Your task to perform on an android device: Open Yahoo.com Image 0: 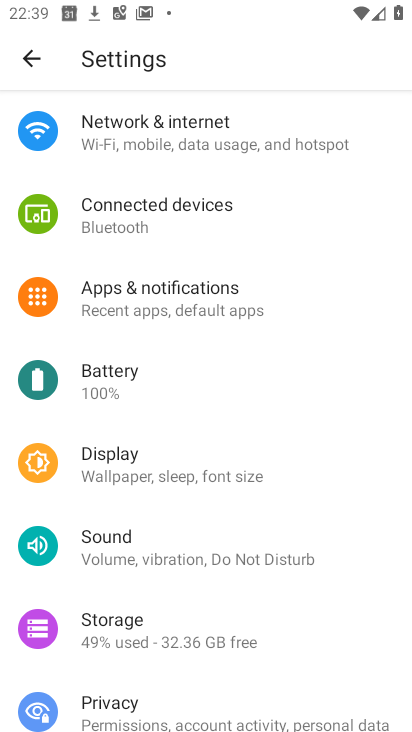
Step 0: press home button
Your task to perform on an android device: Open Yahoo.com Image 1: 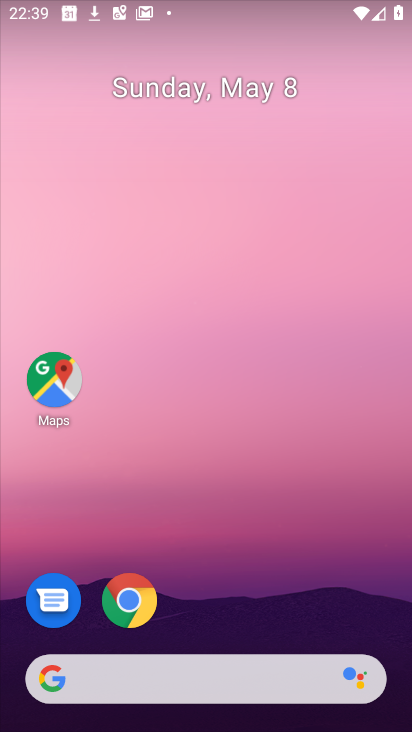
Step 1: drag from (254, 708) to (235, 270)
Your task to perform on an android device: Open Yahoo.com Image 2: 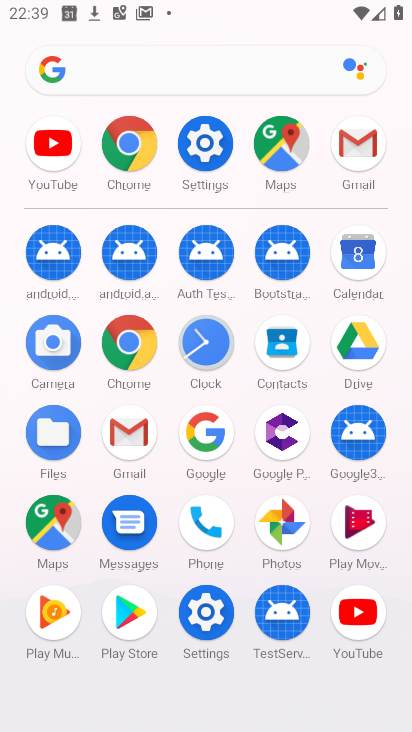
Step 2: click (134, 150)
Your task to perform on an android device: Open Yahoo.com Image 3: 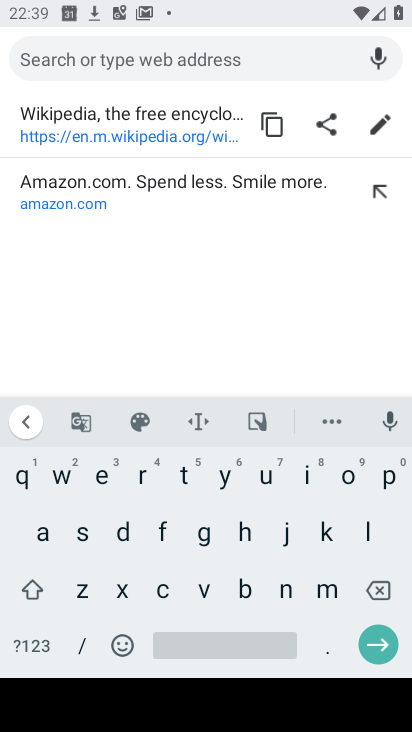
Step 3: click (222, 478)
Your task to perform on an android device: Open Yahoo.com Image 4: 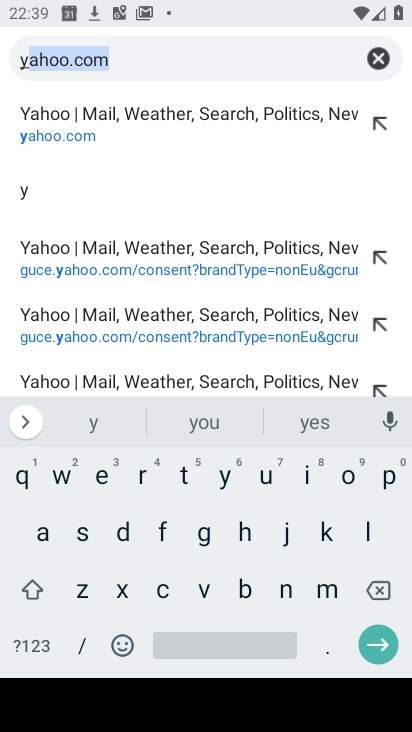
Step 4: click (35, 538)
Your task to perform on an android device: Open Yahoo.com Image 5: 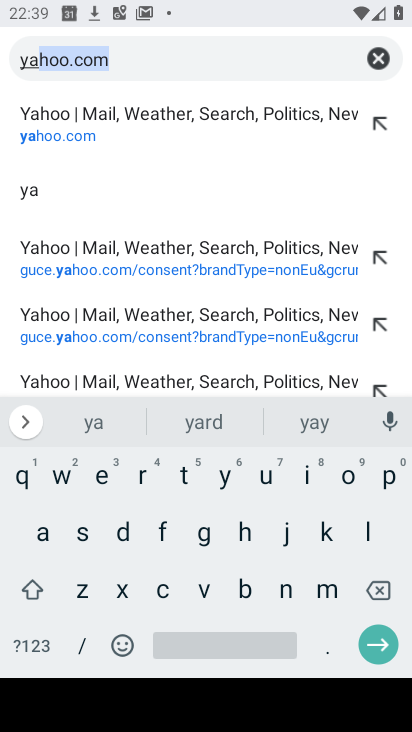
Step 5: click (138, 63)
Your task to perform on an android device: Open Yahoo.com Image 6: 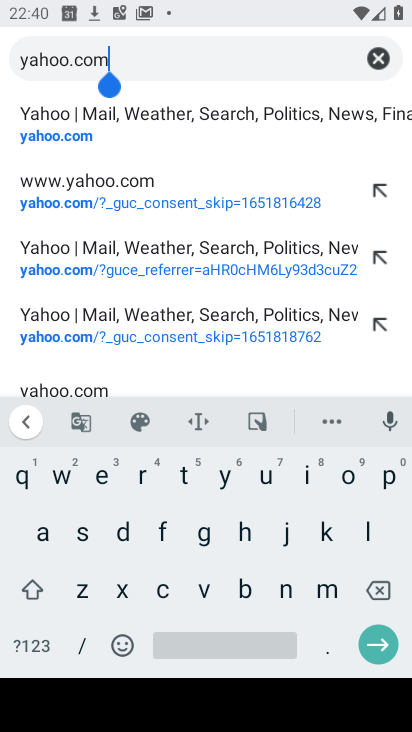
Step 6: click (377, 653)
Your task to perform on an android device: Open Yahoo.com Image 7: 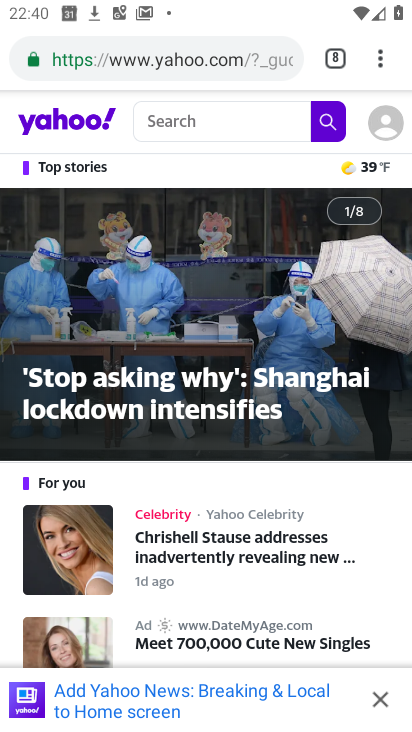
Step 7: task complete